Your task to perform on an android device: Search for sushi restaurants on Maps Image 0: 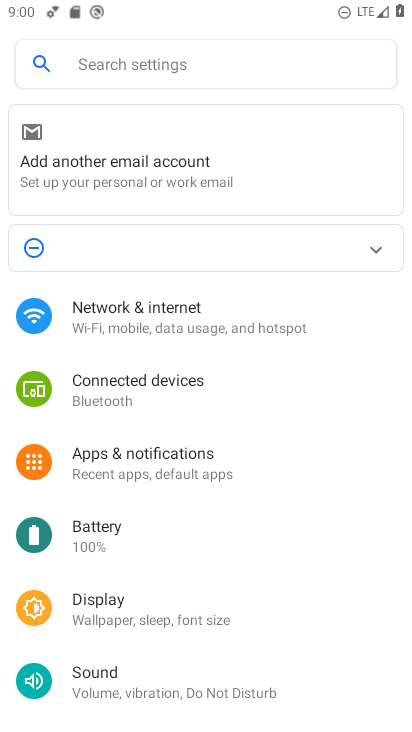
Step 0: press home button
Your task to perform on an android device: Search for sushi restaurants on Maps Image 1: 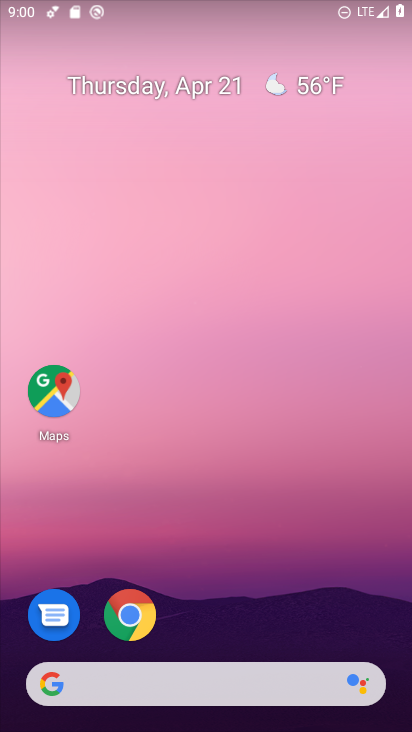
Step 1: click (136, 617)
Your task to perform on an android device: Search for sushi restaurants on Maps Image 2: 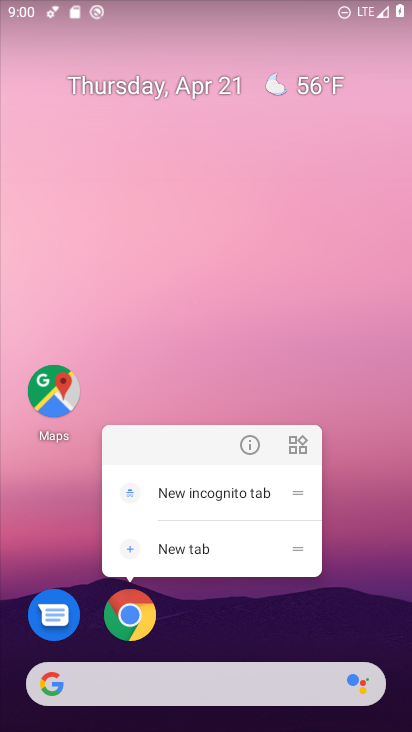
Step 2: click (73, 385)
Your task to perform on an android device: Search for sushi restaurants on Maps Image 3: 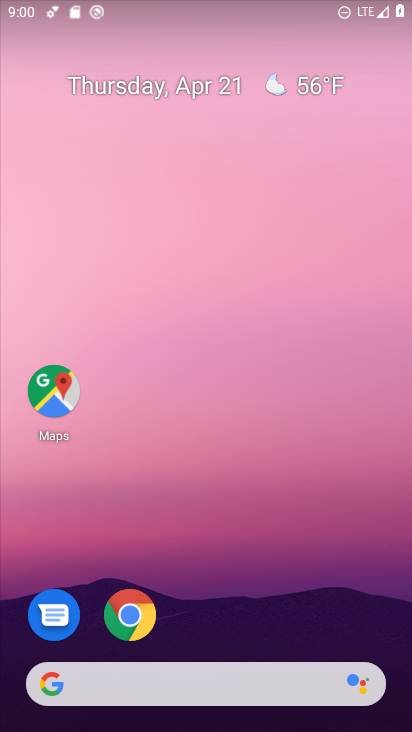
Step 3: click (49, 401)
Your task to perform on an android device: Search for sushi restaurants on Maps Image 4: 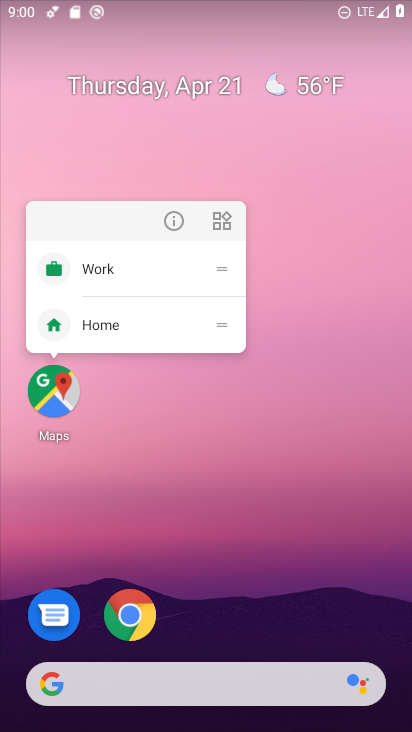
Step 4: click (49, 400)
Your task to perform on an android device: Search for sushi restaurants on Maps Image 5: 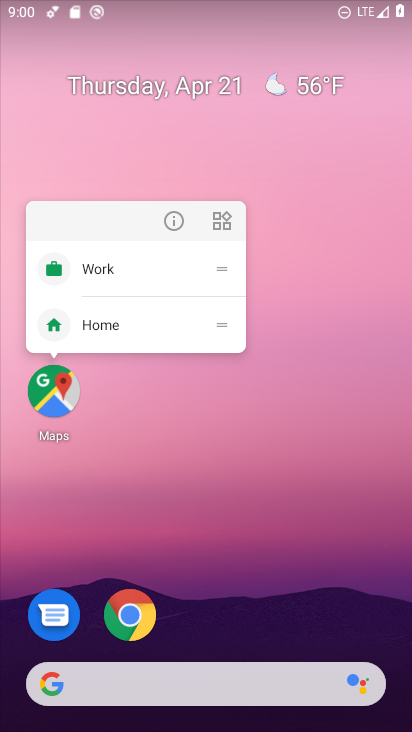
Step 5: click (49, 401)
Your task to perform on an android device: Search for sushi restaurants on Maps Image 6: 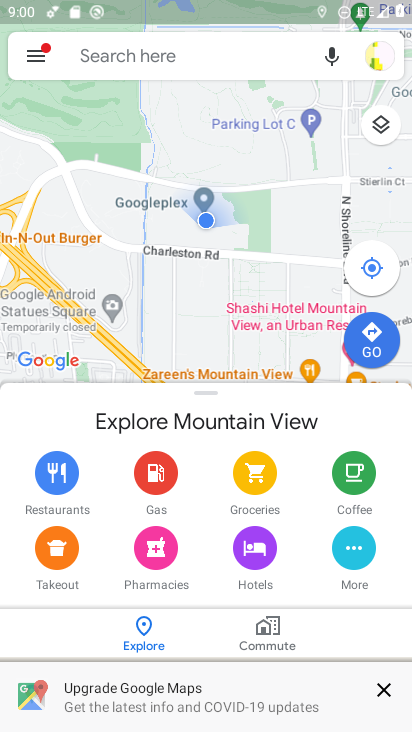
Step 6: click (143, 56)
Your task to perform on an android device: Search for sushi restaurants on Maps Image 7: 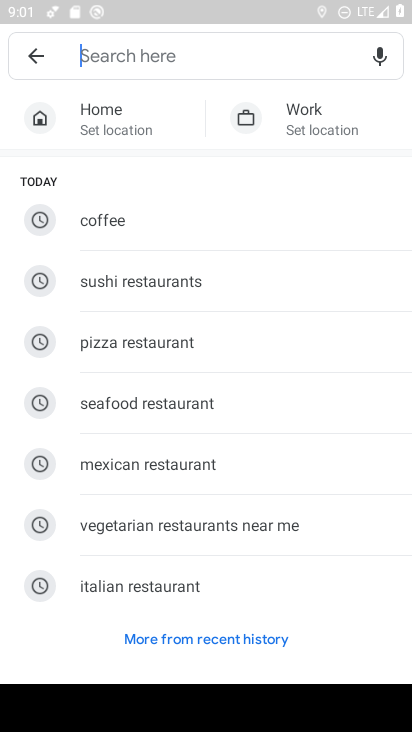
Step 7: click (102, 282)
Your task to perform on an android device: Search for sushi restaurants on Maps Image 8: 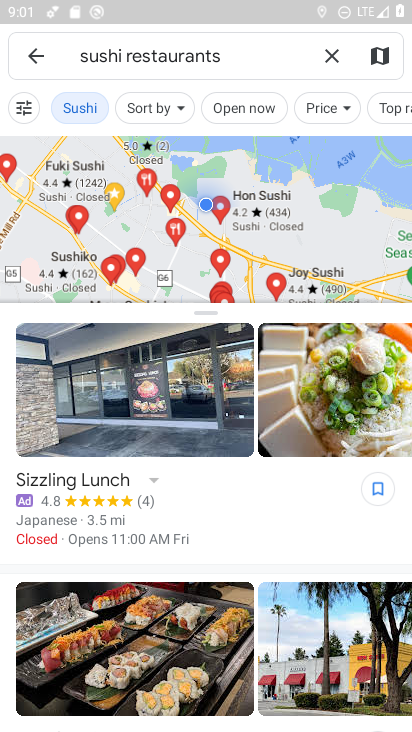
Step 8: task complete